Your task to perform on an android device: manage bookmarks in the chrome app Image 0: 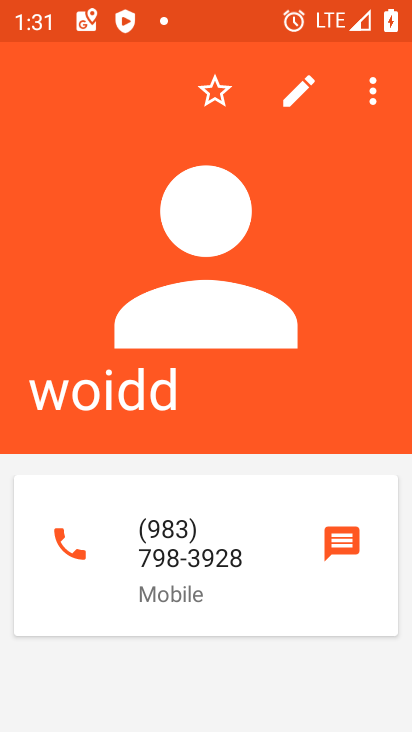
Step 0: press home button
Your task to perform on an android device: manage bookmarks in the chrome app Image 1: 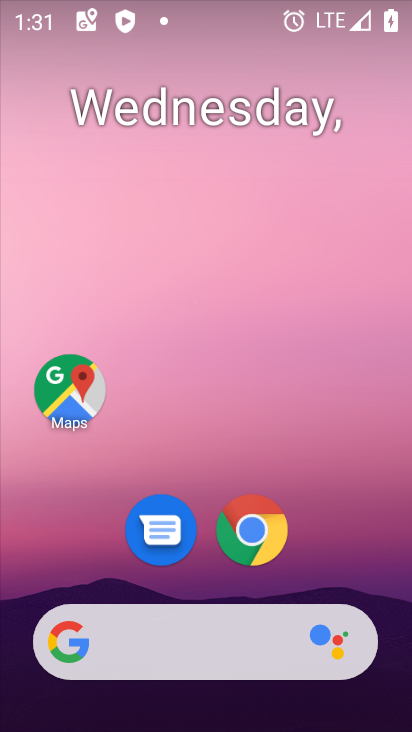
Step 1: click (282, 535)
Your task to perform on an android device: manage bookmarks in the chrome app Image 2: 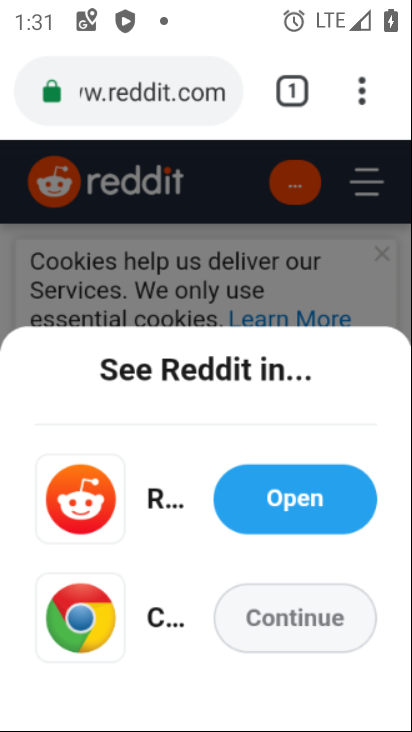
Step 2: task complete